Your task to perform on an android device: Open Chrome and go to settings Image 0: 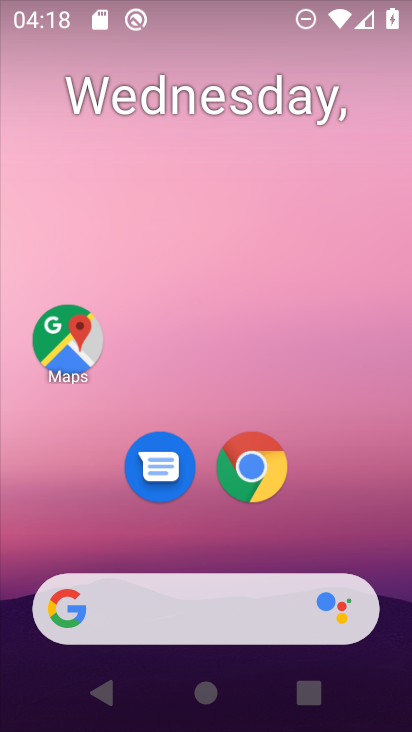
Step 0: click (253, 468)
Your task to perform on an android device: Open Chrome and go to settings Image 1: 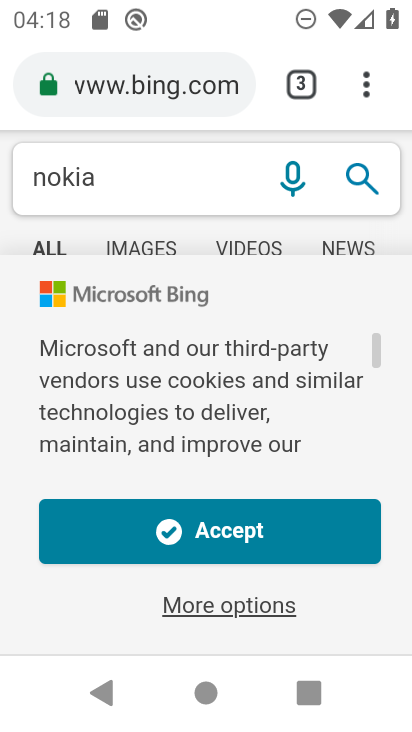
Step 1: click (366, 91)
Your task to perform on an android device: Open Chrome and go to settings Image 2: 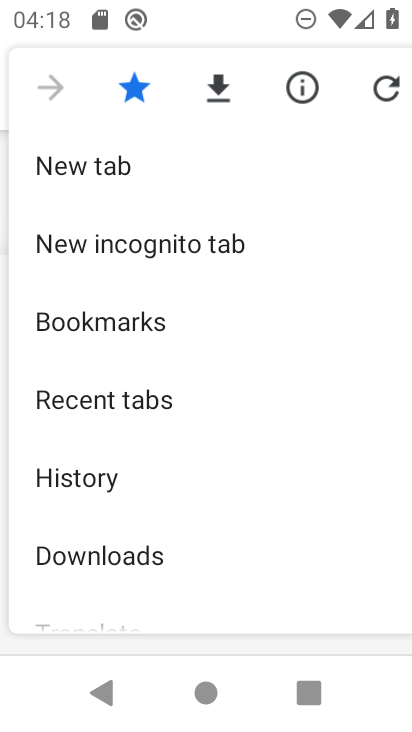
Step 2: drag from (205, 565) to (239, 232)
Your task to perform on an android device: Open Chrome and go to settings Image 3: 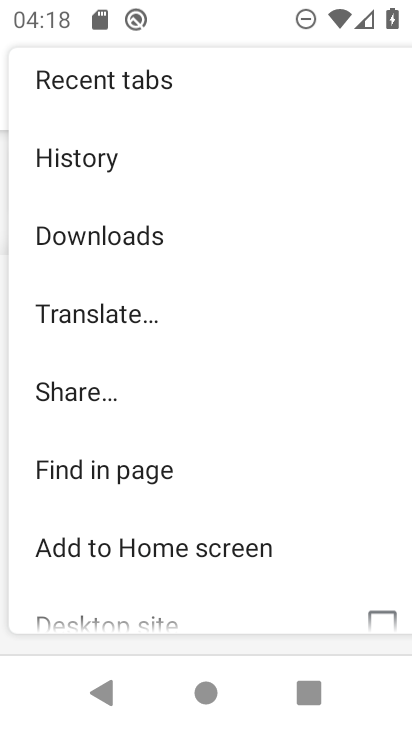
Step 3: drag from (310, 558) to (263, 251)
Your task to perform on an android device: Open Chrome and go to settings Image 4: 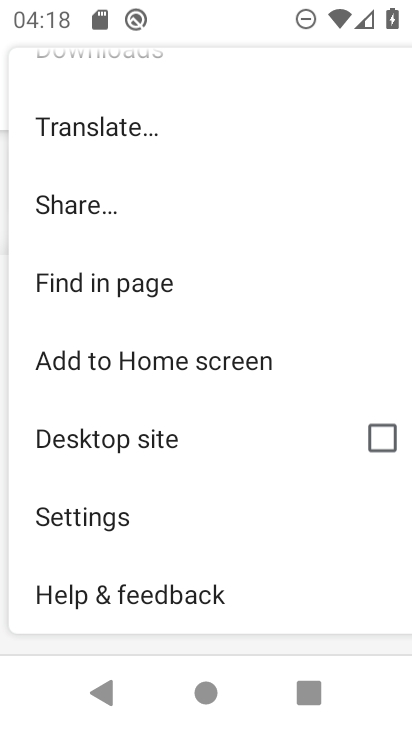
Step 4: click (54, 514)
Your task to perform on an android device: Open Chrome and go to settings Image 5: 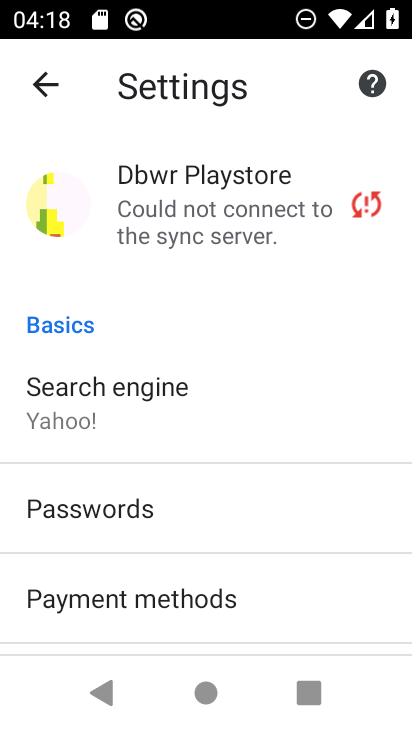
Step 5: task complete